Your task to perform on an android device: change the clock display to analog Image 0: 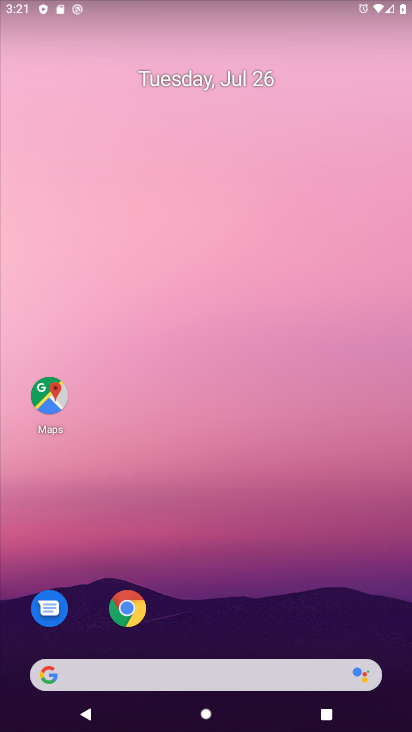
Step 0: drag from (389, 712) to (361, 163)
Your task to perform on an android device: change the clock display to analog Image 1: 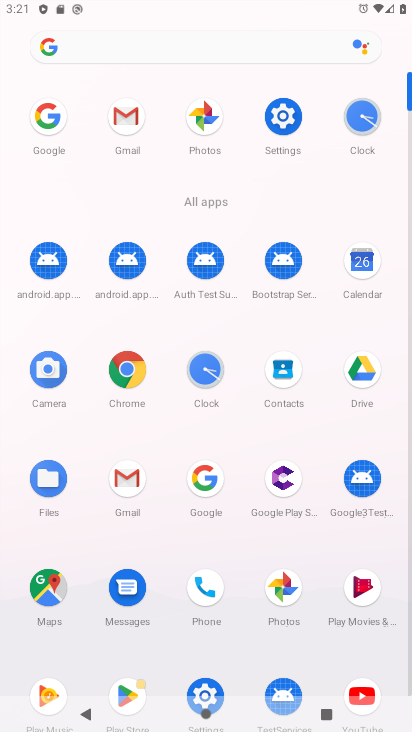
Step 1: click (198, 373)
Your task to perform on an android device: change the clock display to analog Image 2: 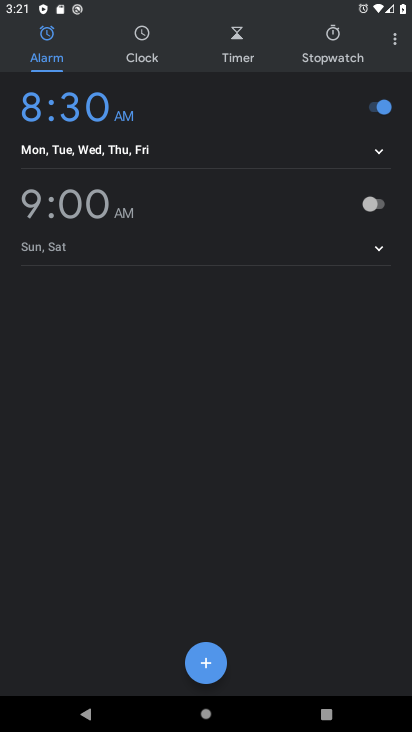
Step 2: click (396, 44)
Your task to perform on an android device: change the clock display to analog Image 3: 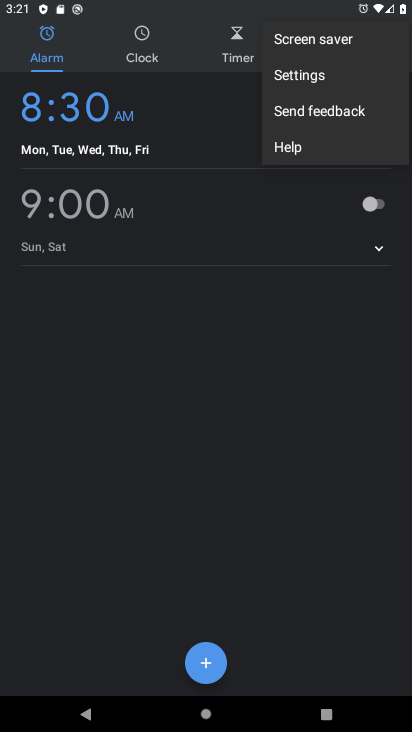
Step 3: click (302, 72)
Your task to perform on an android device: change the clock display to analog Image 4: 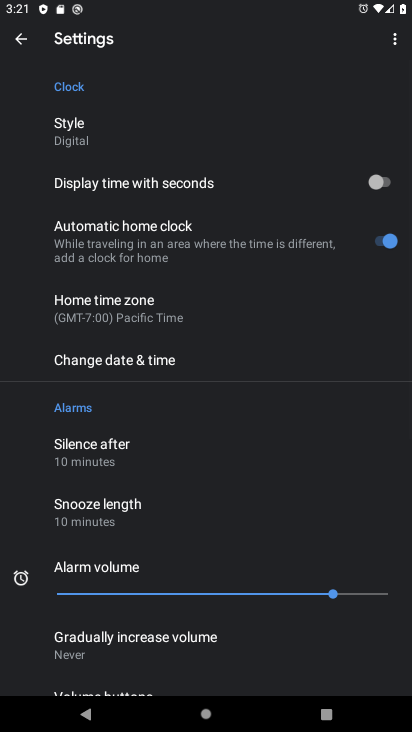
Step 4: click (81, 136)
Your task to perform on an android device: change the clock display to analog Image 5: 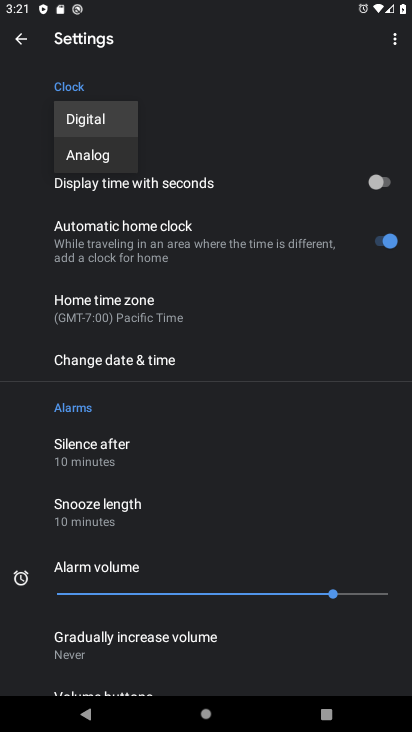
Step 5: click (90, 148)
Your task to perform on an android device: change the clock display to analog Image 6: 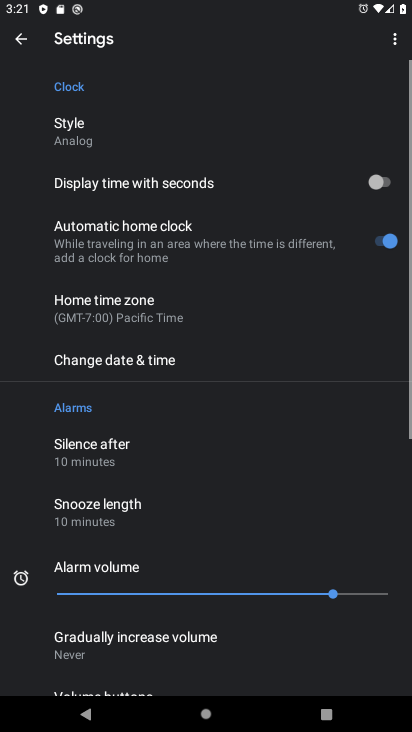
Step 6: task complete